Your task to perform on an android device: Go to notification settings Image 0: 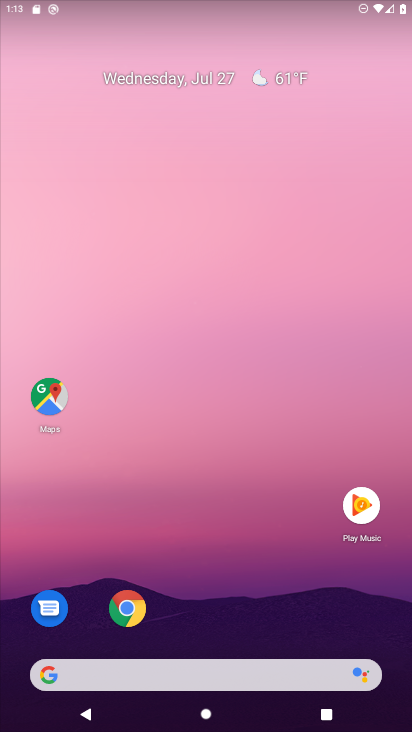
Step 0: press home button
Your task to perform on an android device: Go to notification settings Image 1: 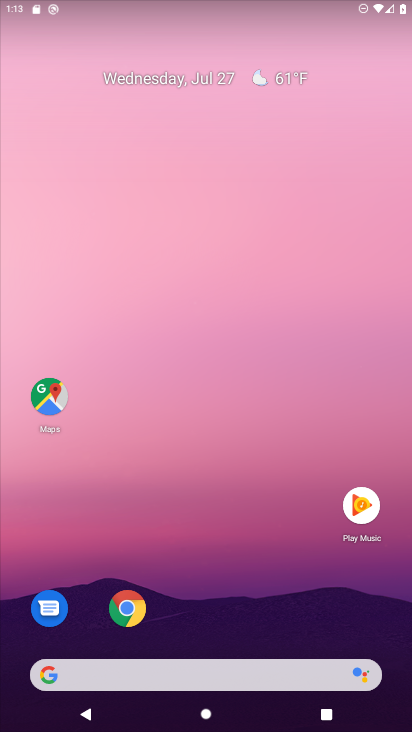
Step 1: drag from (294, 629) to (317, 133)
Your task to perform on an android device: Go to notification settings Image 2: 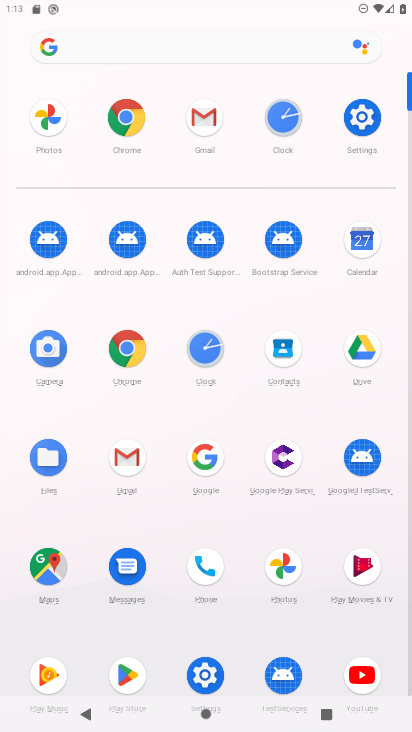
Step 2: click (361, 119)
Your task to perform on an android device: Go to notification settings Image 3: 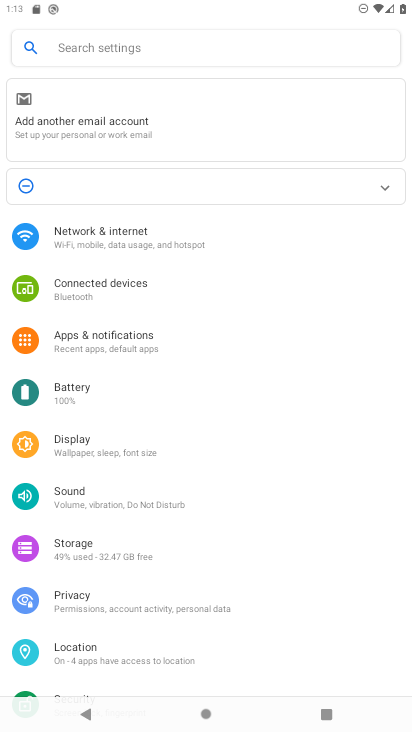
Step 3: drag from (339, 453) to (342, 382)
Your task to perform on an android device: Go to notification settings Image 4: 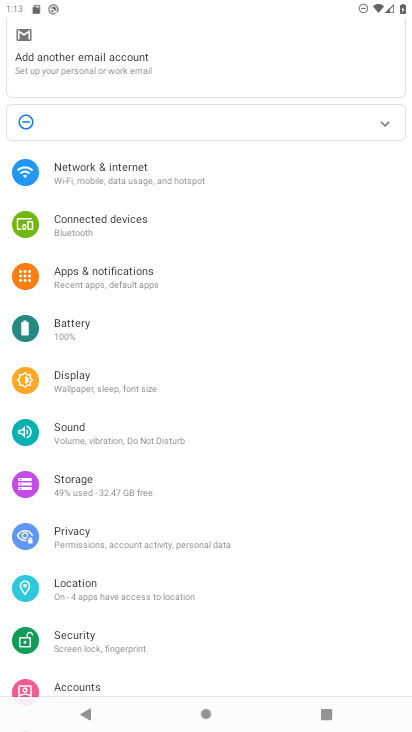
Step 4: drag from (318, 504) to (324, 428)
Your task to perform on an android device: Go to notification settings Image 5: 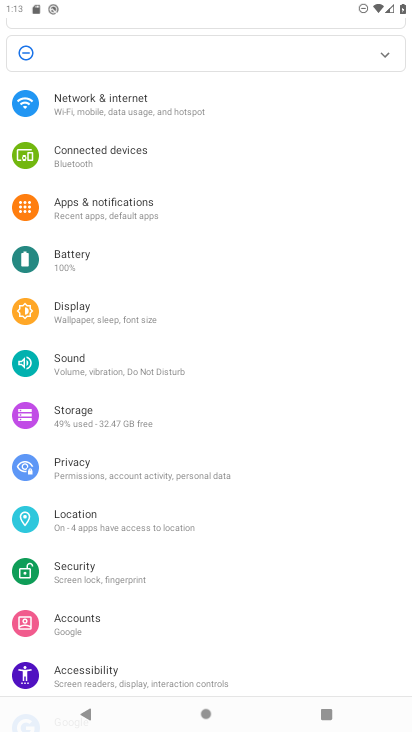
Step 5: drag from (311, 532) to (318, 472)
Your task to perform on an android device: Go to notification settings Image 6: 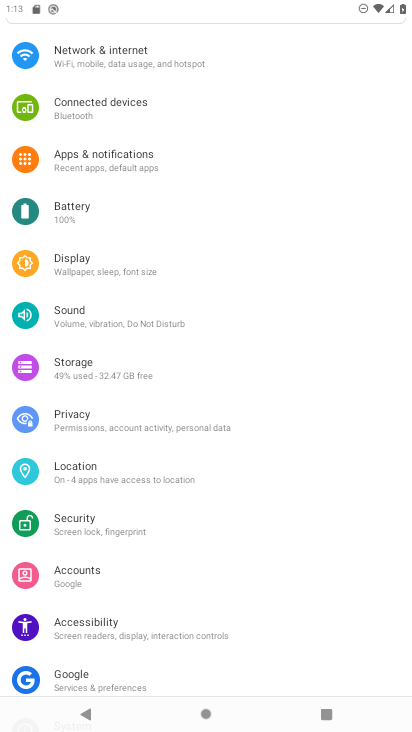
Step 6: drag from (312, 570) to (311, 498)
Your task to perform on an android device: Go to notification settings Image 7: 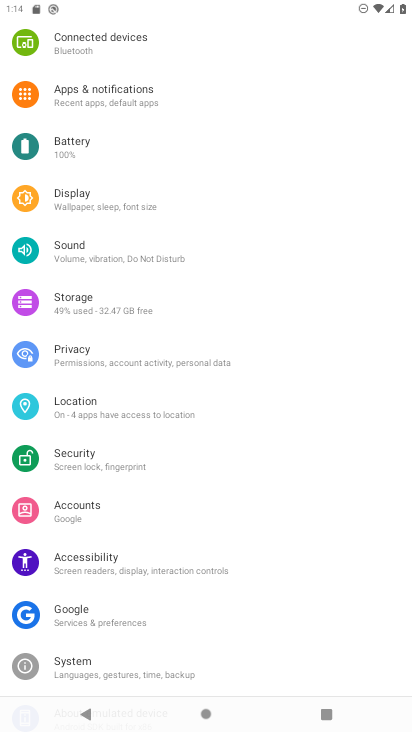
Step 7: drag from (301, 568) to (302, 512)
Your task to perform on an android device: Go to notification settings Image 8: 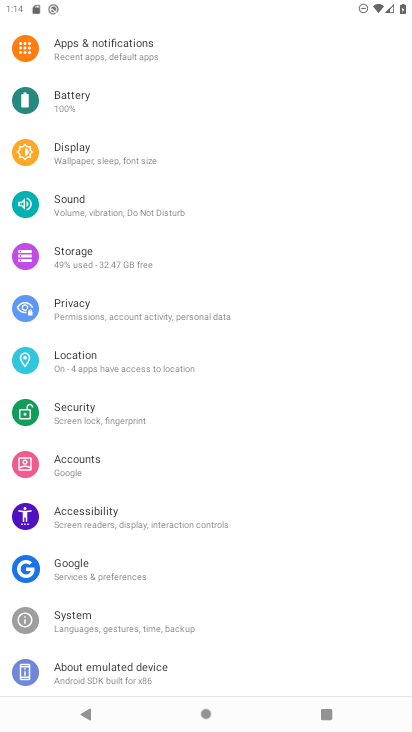
Step 8: drag from (285, 610) to (289, 535)
Your task to perform on an android device: Go to notification settings Image 9: 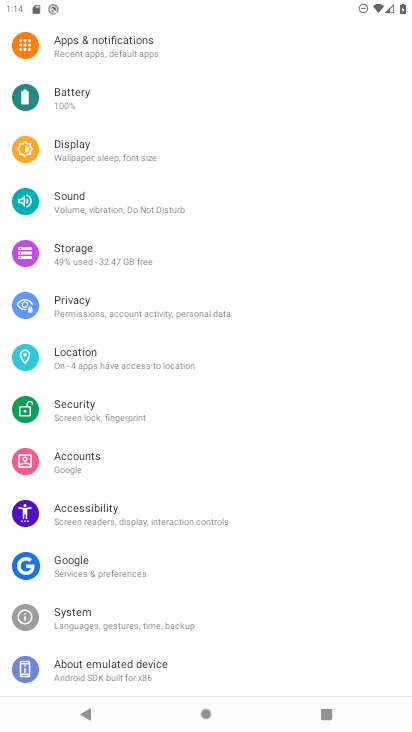
Step 9: drag from (284, 449) to (279, 504)
Your task to perform on an android device: Go to notification settings Image 10: 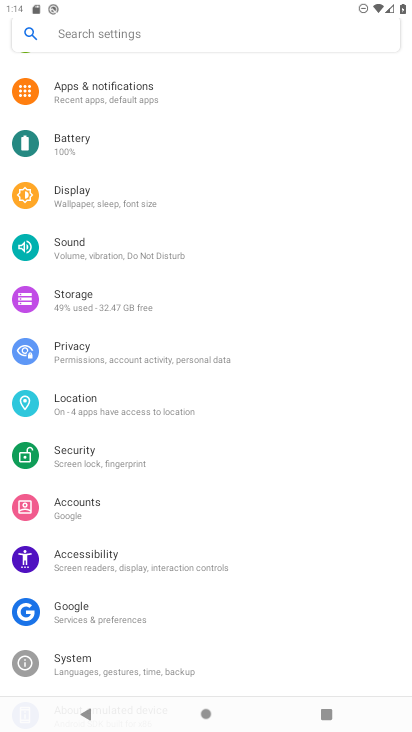
Step 10: drag from (280, 429) to (287, 499)
Your task to perform on an android device: Go to notification settings Image 11: 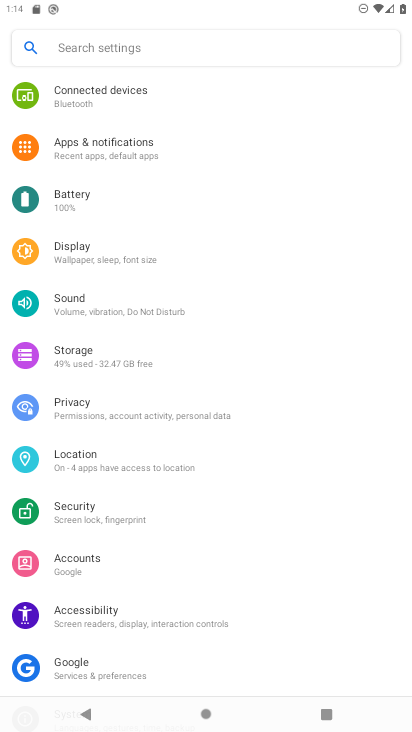
Step 11: drag from (286, 375) to (289, 447)
Your task to perform on an android device: Go to notification settings Image 12: 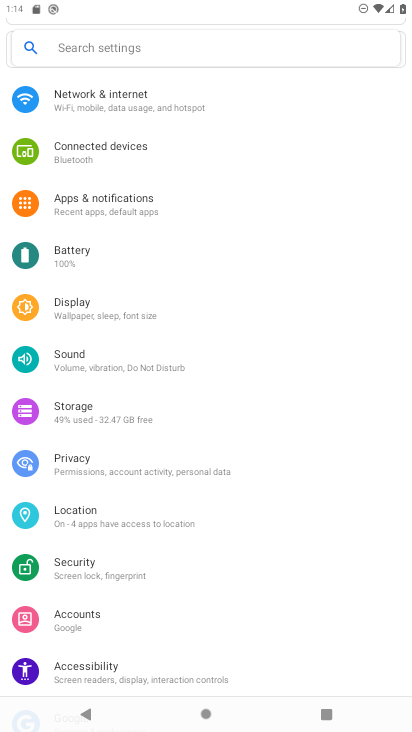
Step 12: drag from (276, 348) to (279, 405)
Your task to perform on an android device: Go to notification settings Image 13: 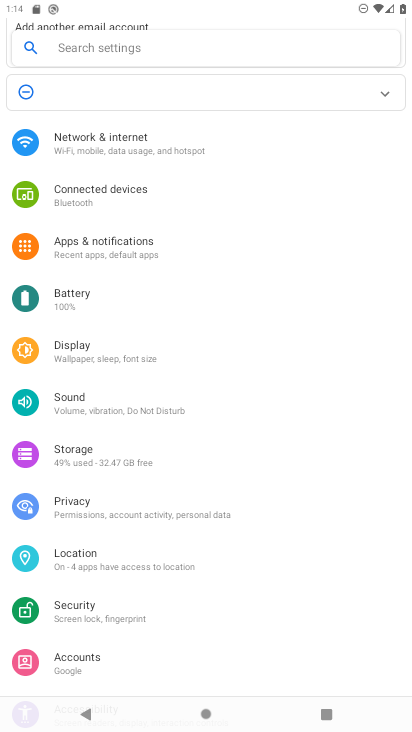
Step 13: drag from (282, 316) to (288, 391)
Your task to perform on an android device: Go to notification settings Image 14: 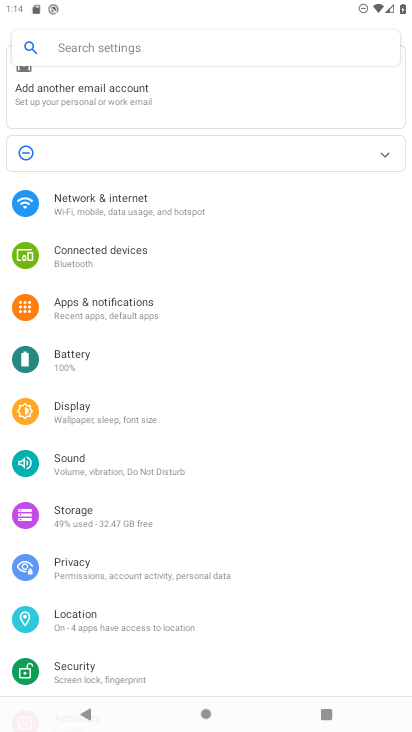
Step 14: drag from (289, 319) to (289, 442)
Your task to perform on an android device: Go to notification settings Image 15: 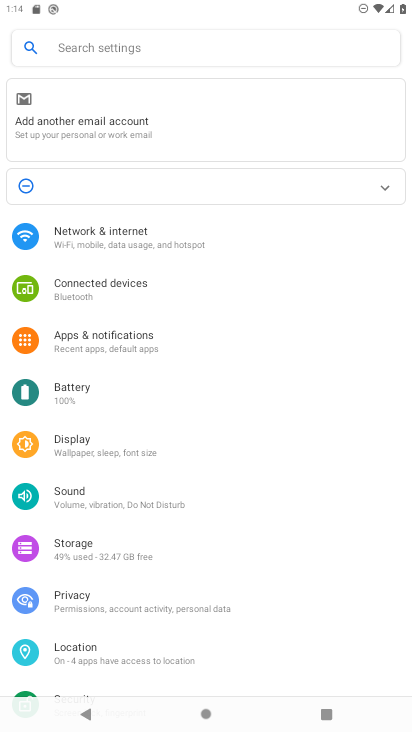
Step 15: click (92, 346)
Your task to perform on an android device: Go to notification settings Image 16: 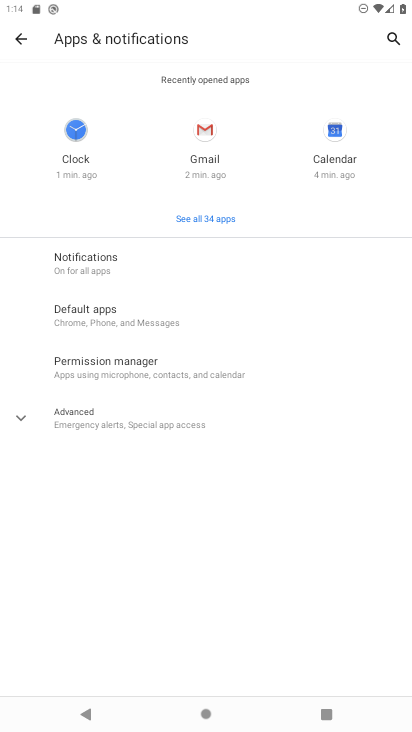
Step 16: click (123, 266)
Your task to perform on an android device: Go to notification settings Image 17: 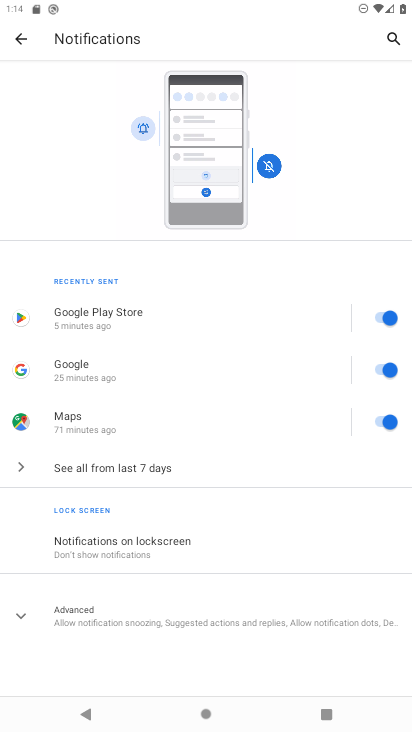
Step 17: task complete